Your task to perform on an android device: Open Wikipedia Image 0: 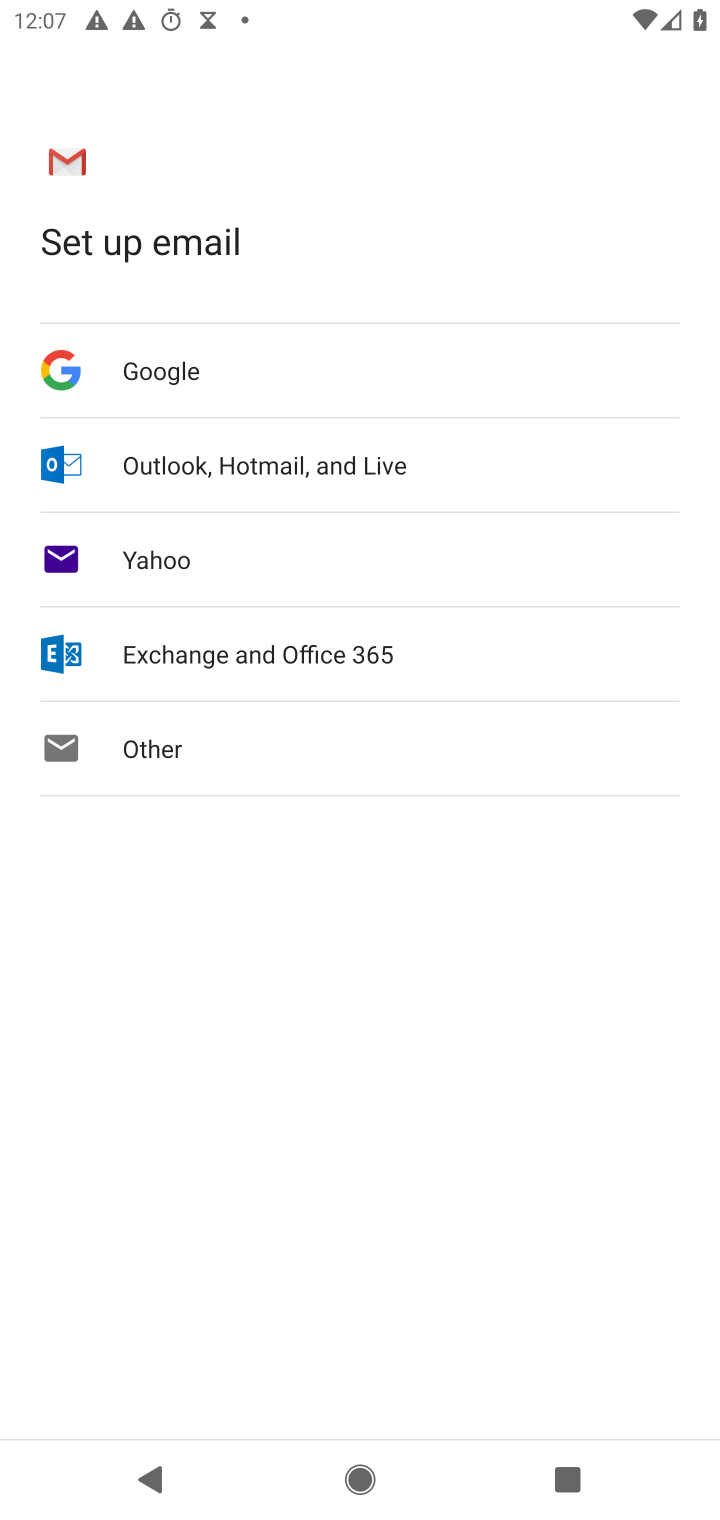
Step 0: press home button
Your task to perform on an android device: Open Wikipedia Image 1: 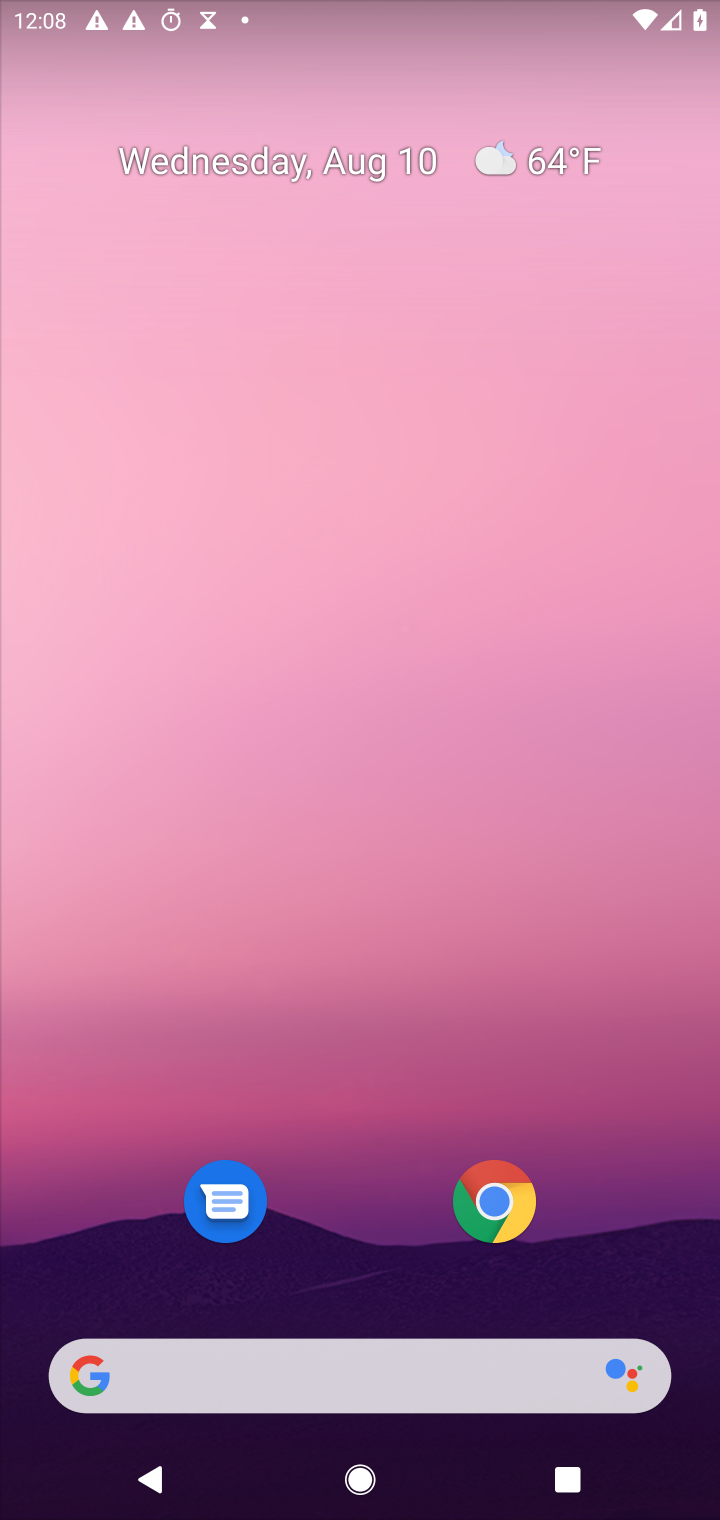
Step 1: drag from (397, 1162) to (384, 88)
Your task to perform on an android device: Open Wikipedia Image 2: 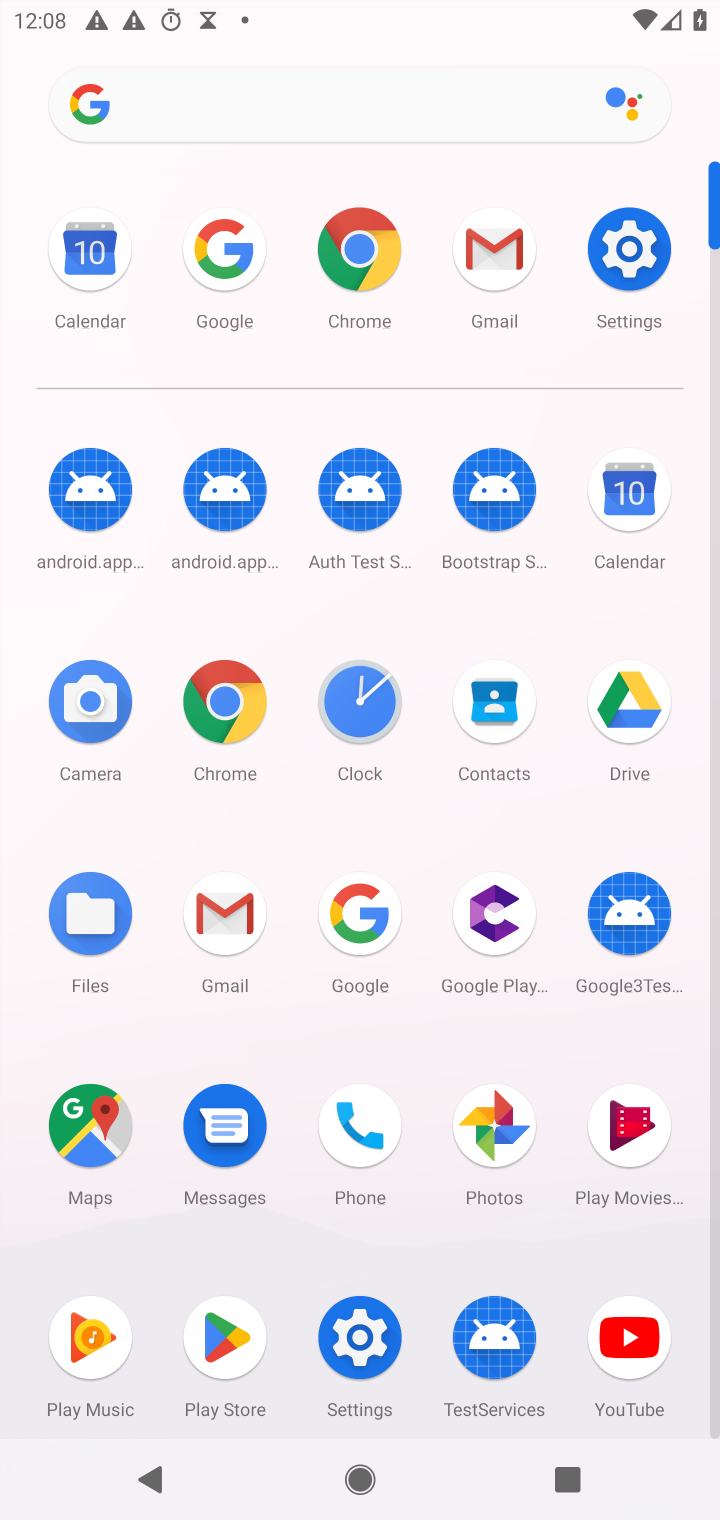
Step 2: click (219, 272)
Your task to perform on an android device: Open Wikipedia Image 3: 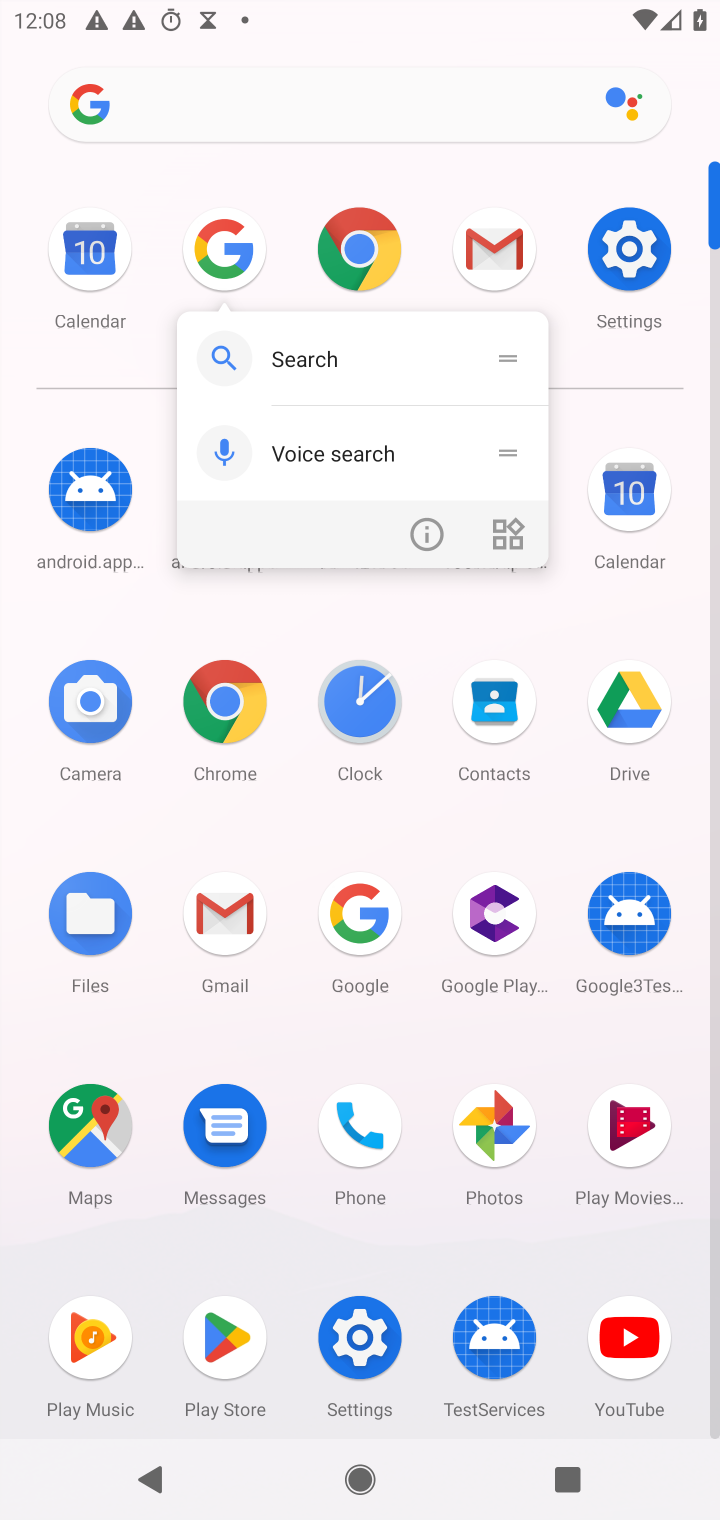
Step 3: click (236, 255)
Your task to perform on an android device: Open Wikipedia Image 4: 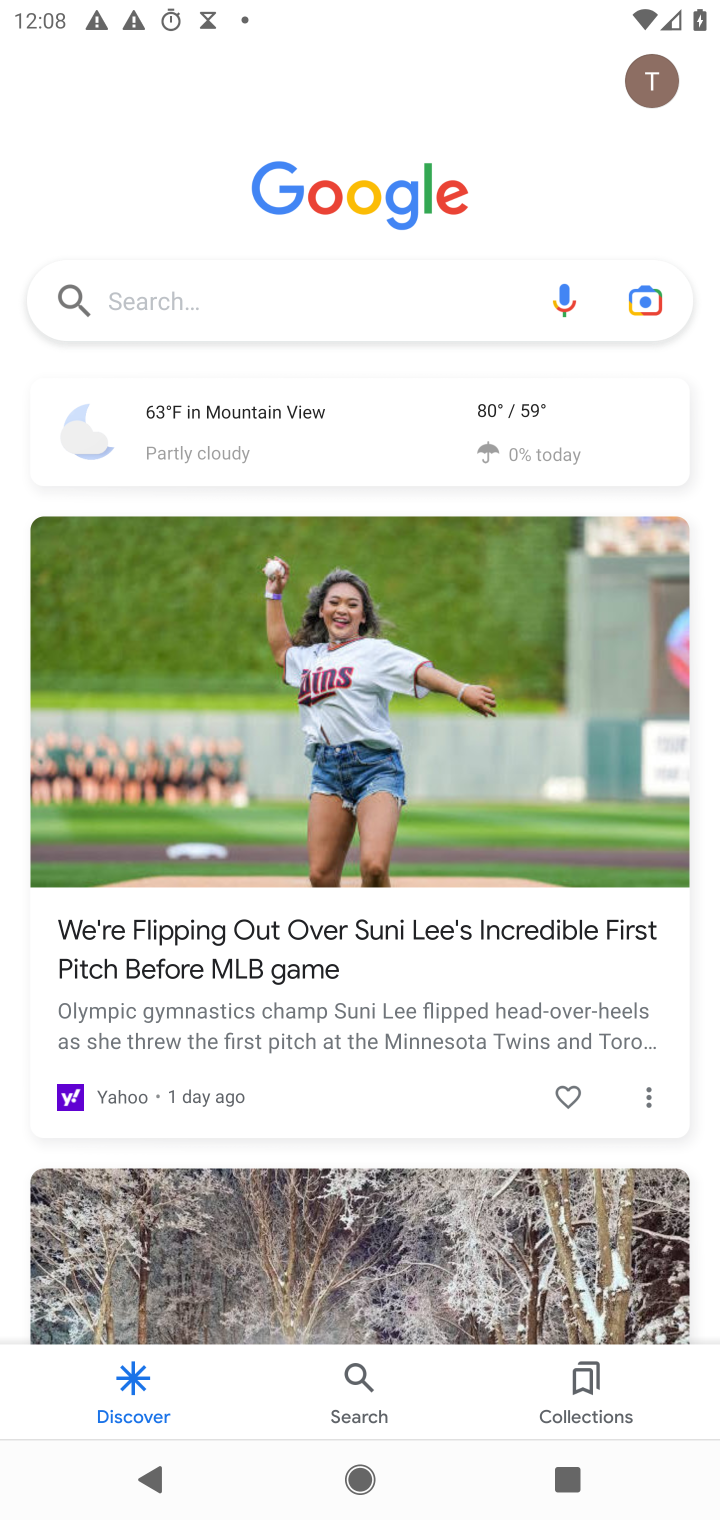
Step 4: type "Wikipedia"
Your task to perform on an android device: Open Wikipedia Image 5: 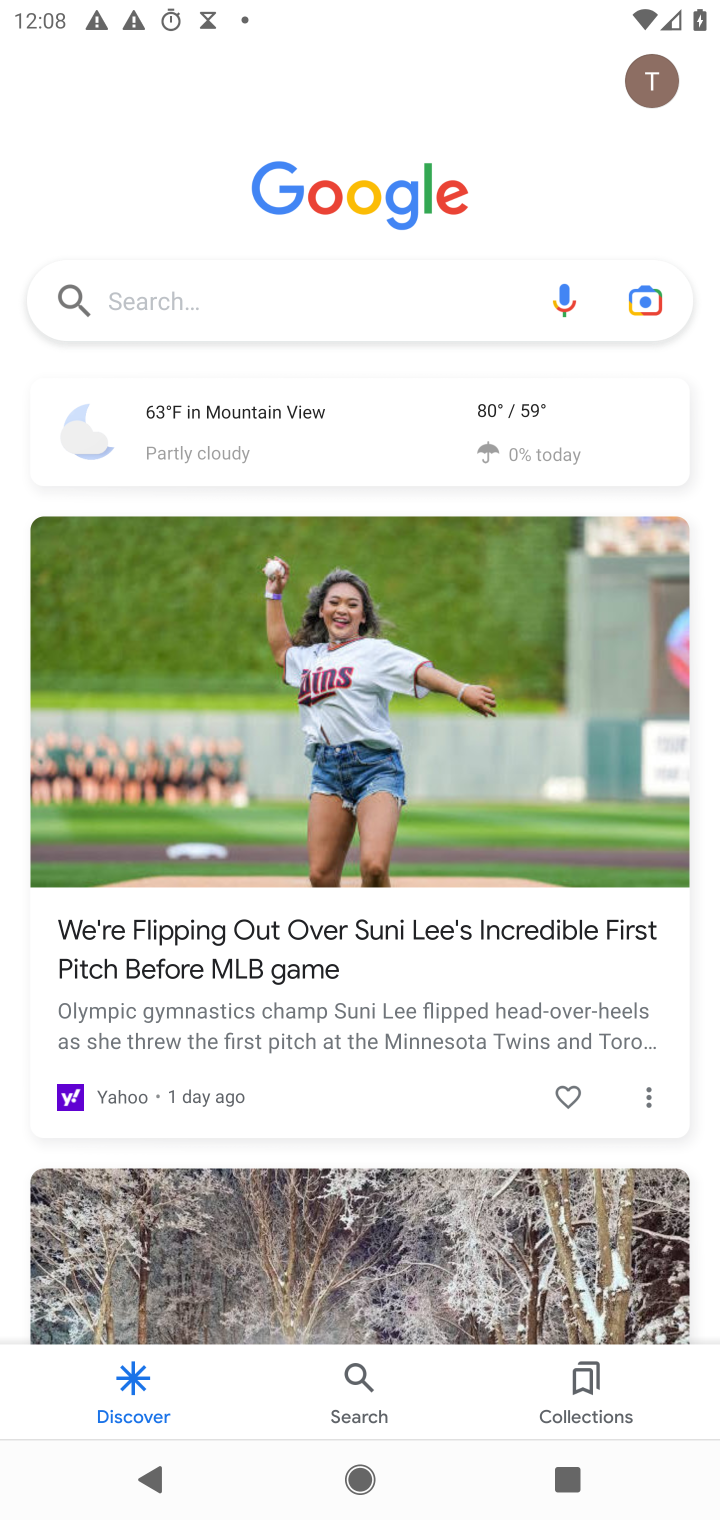
Step 5: click (214, 299)
Your task to perform on an android device: Open Wikipedia Image 6: 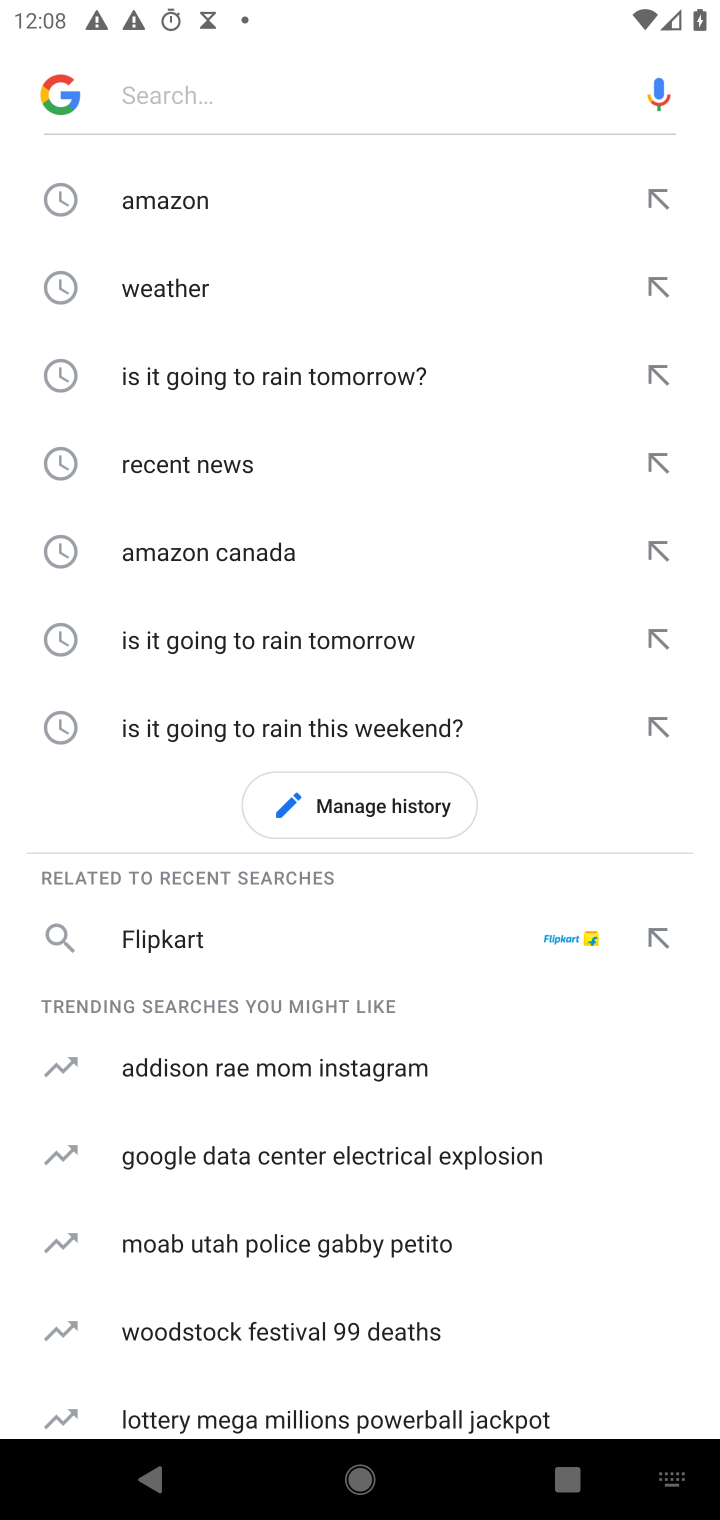
Step 6: type "Wikipedia"
Your task to perform on an android device: Open Wikipedia Image 7: 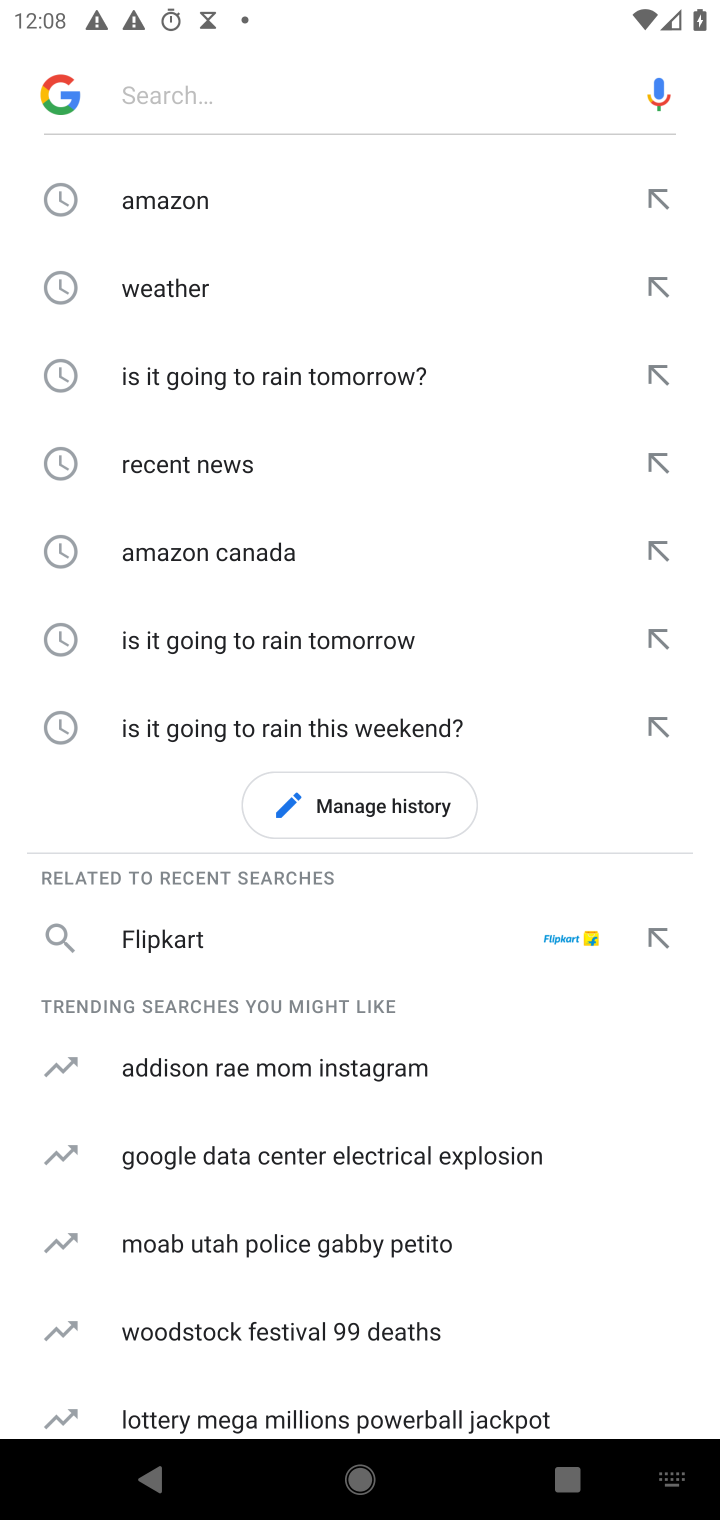
Step 7: click (128, 91)
Your task to perform on an android device: Open Wikipedia Image 8: 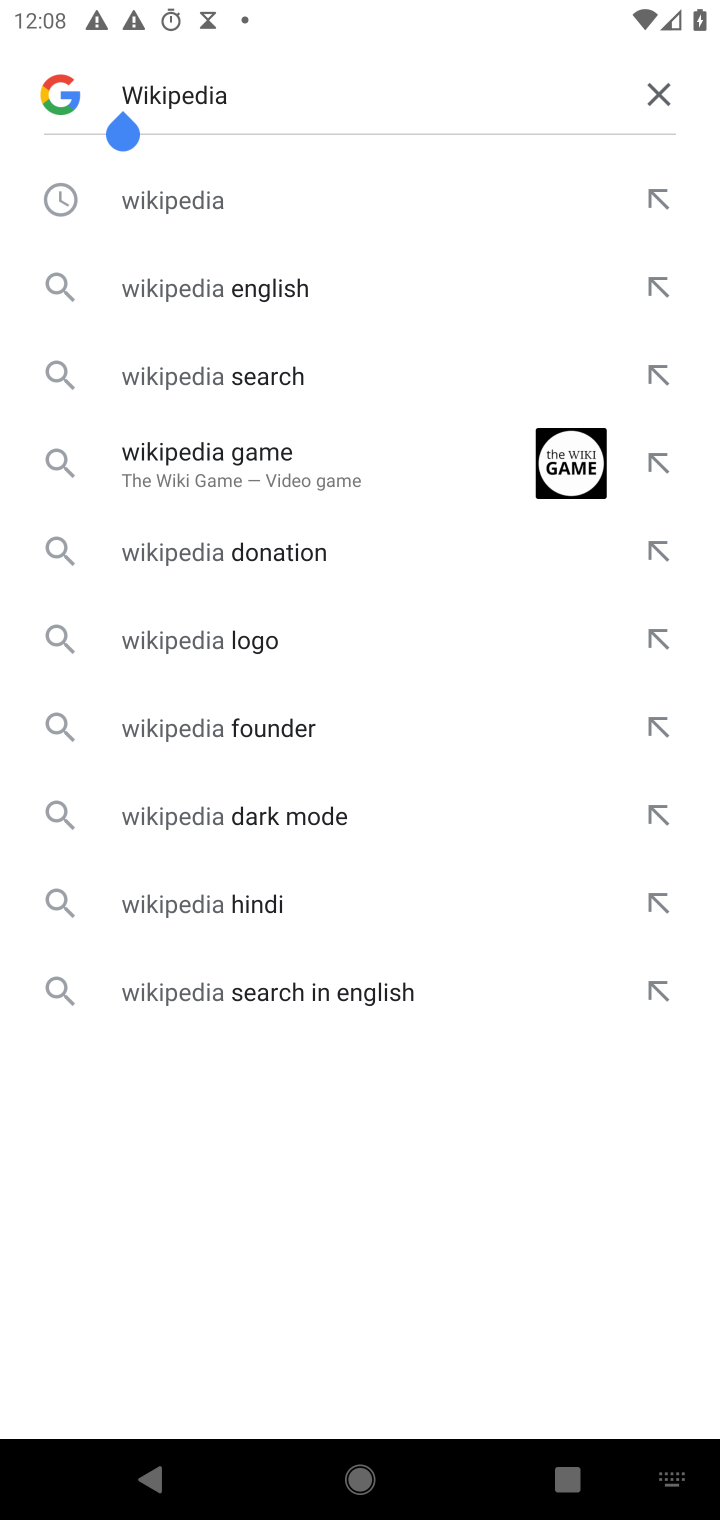
Step 8: click (173, 193)
Your task to perform on an android device: Open Wikipedia Image 9: 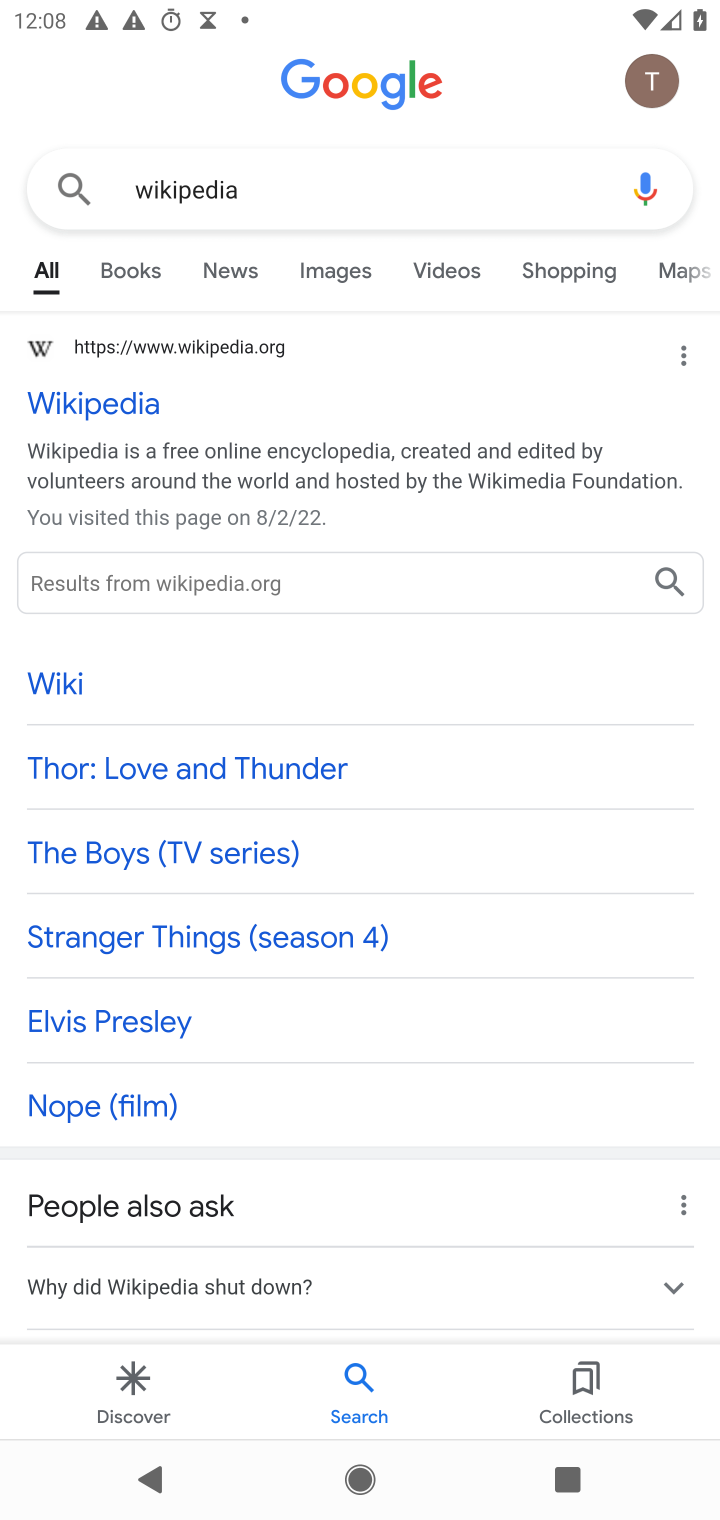
Step 9: click (112, 395)
Your task to perform on an android device: Open Wikipedia Image 10: 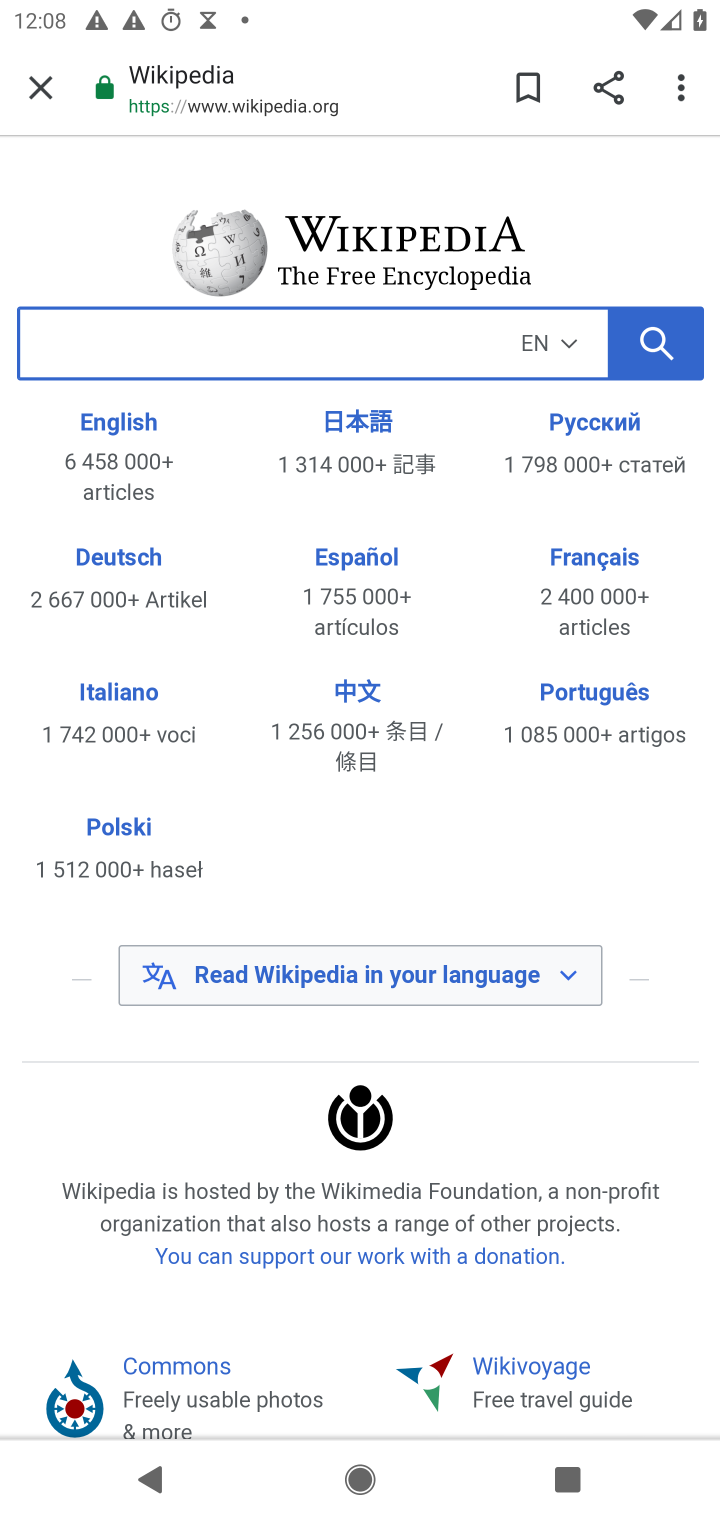
Step 10: task complete